Your task to perform on an android device: choose inbox layout in the gmail app Image 0: 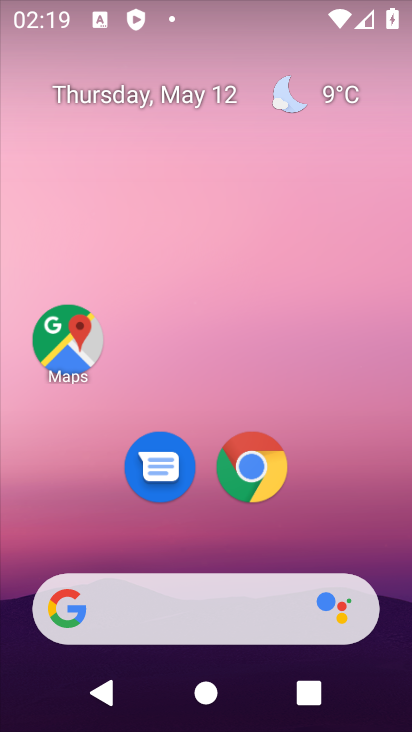
Step 0: drag from (318, 489) to (309, 282)
Your task to perform on an android device: choose inbox layout in the gmail app Image 1: 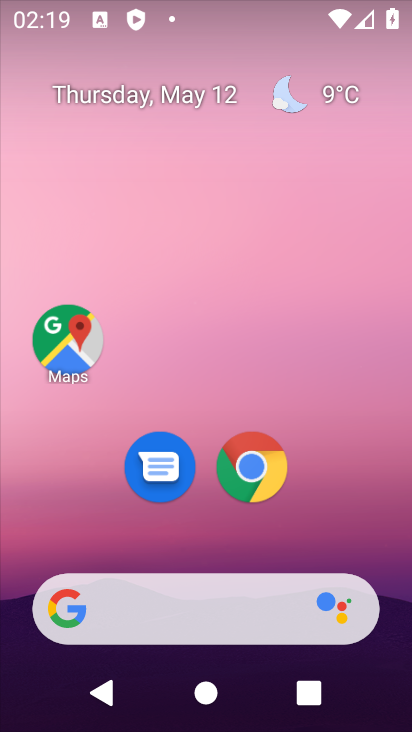
Step 1: drag from (337, 512) to (352, 213)
Your task to perform on an android device: choose inbox layout in the gmail app Image 2: 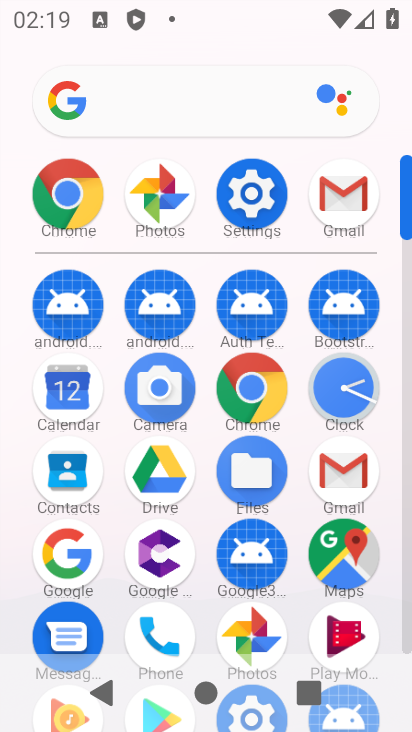
Step 2: click (328, 191)
Your task to perform on an android device: choose inbox layout in the gmail app Image 3: 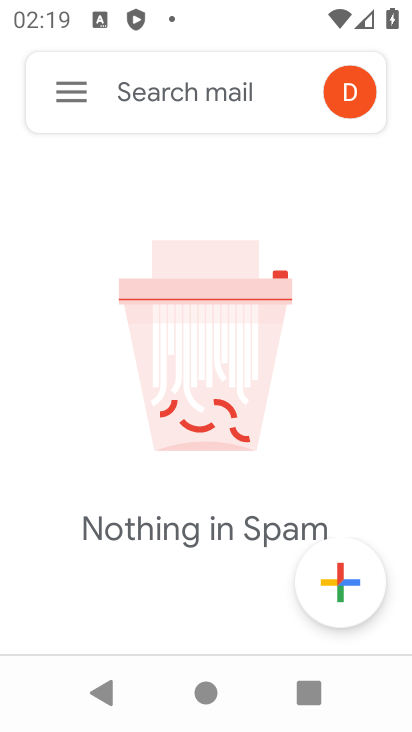
Step 3: click (65, 93)
Your task to perform on an android device: choose inbox layout in the gmail app Image 4: 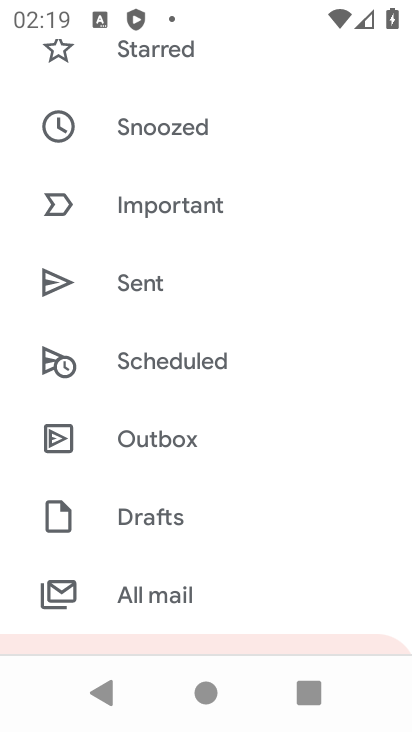
Step 4: drag from (217, 603) to (267, 180)
Your task to perform on an android device: choose inbox layout in the gmail app Image 5: 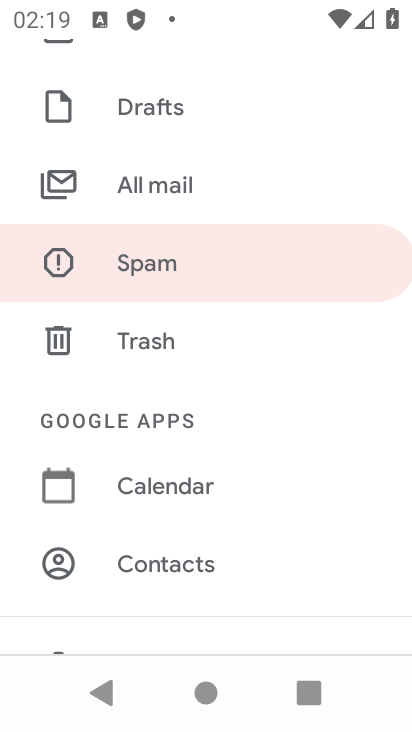
Step 5: drag from (232, 596) to (318, 233)
Your task to perform on an android device: choose inbox layout in the gmail app Image 6: 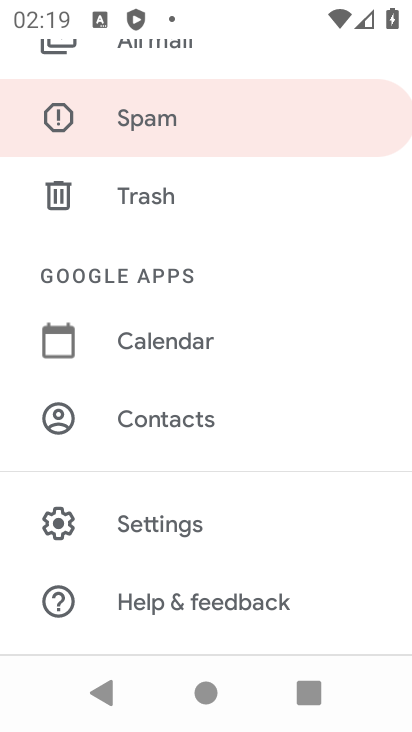
Step 6: click (180, 514)
Your task to perform on an android device: choose inbox layout in the gmail app Image 7: 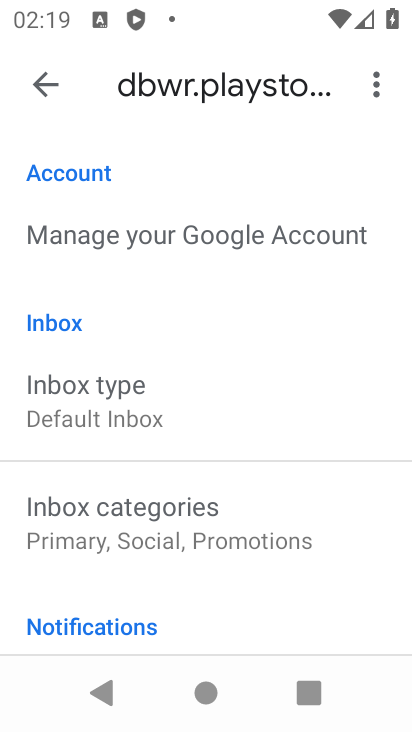
Step 7: click (91, 403)
Your task to perform on an android device: choose inbox layout in the gmail app Image 8: 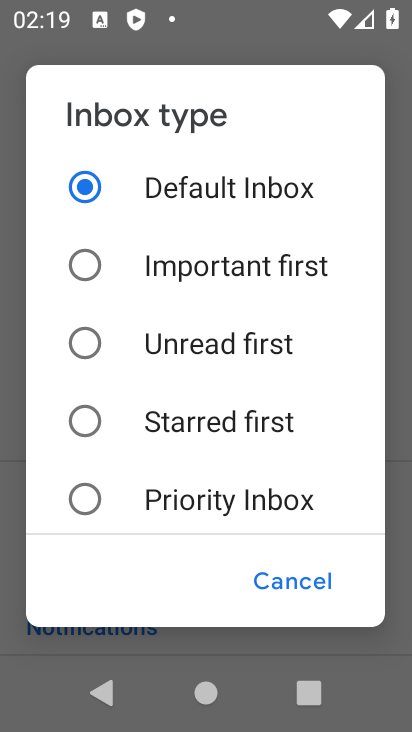
Step 8: click (162, 413)
Your task to perform on an android device: choose inbox layout in the gmail app Image 9: 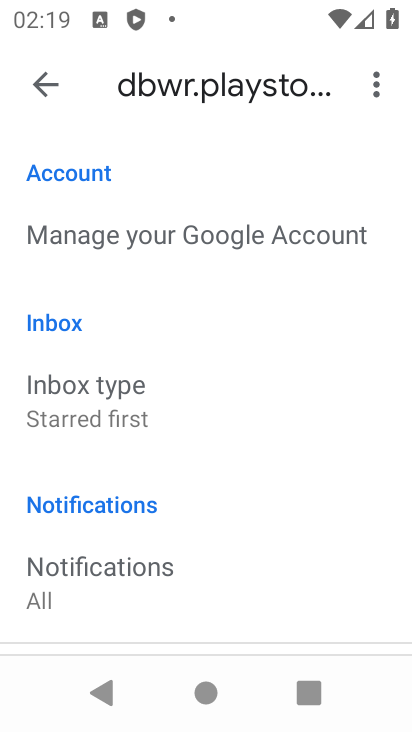
Step 9: task complete